Your task to perform on an android device: install app "Upside-Cash back on gas & food" Image 0: 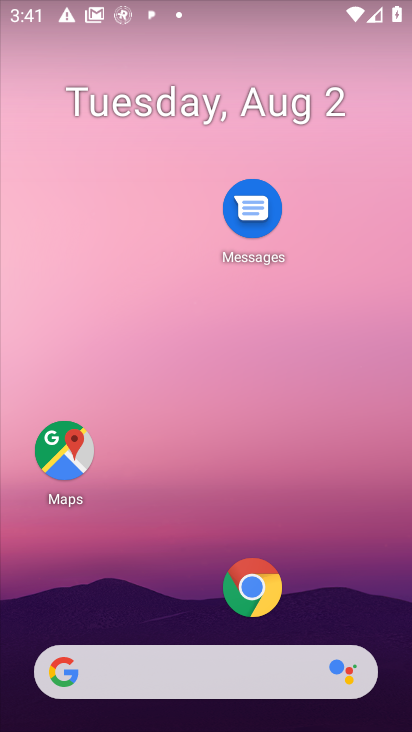
Step 0: drag from (167, 540) to (175, 168)
Your task to perform on an android device: install app "Upside-Cash back on gas & food" Image 1: 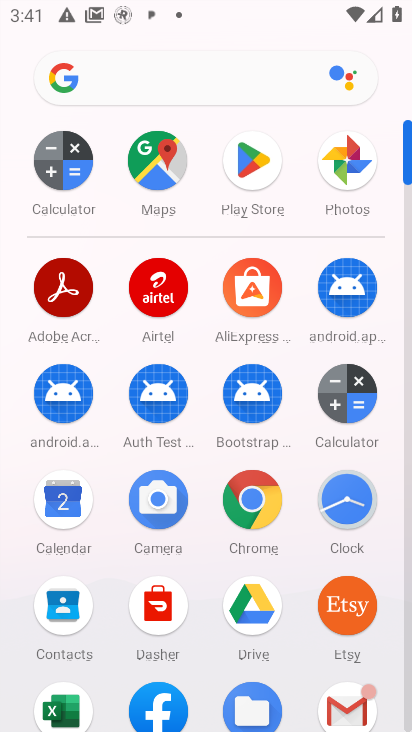
Step 1: click (229, 170)
Your task to perform on an android device: install app "Upside-Cash back on gas & food" Image 2: 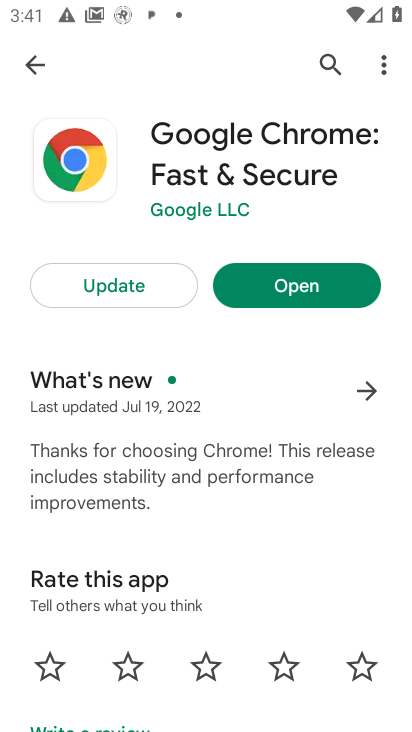
Step 2: click (325, 69)
Your task to perform on an android device: install app "Upside-Cash back on gas & food" Image 3: 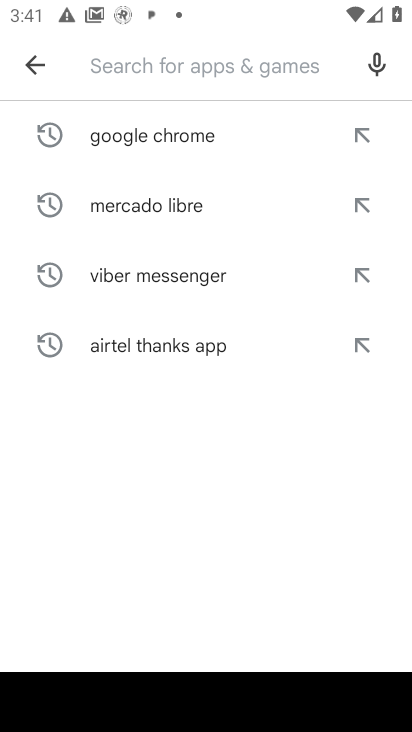
Step 3: type "Upside-Cash back on gas & food"
Your task to perform on an android device: install app "Upside-Cash back on gas & food" Image 4: 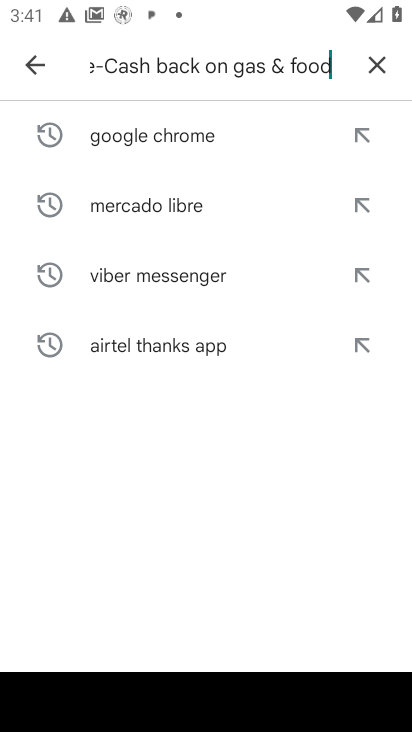
Step 4: type ""
Your task to perform on an android device: install app "Upside-Cash back on gas & food" Image 5: 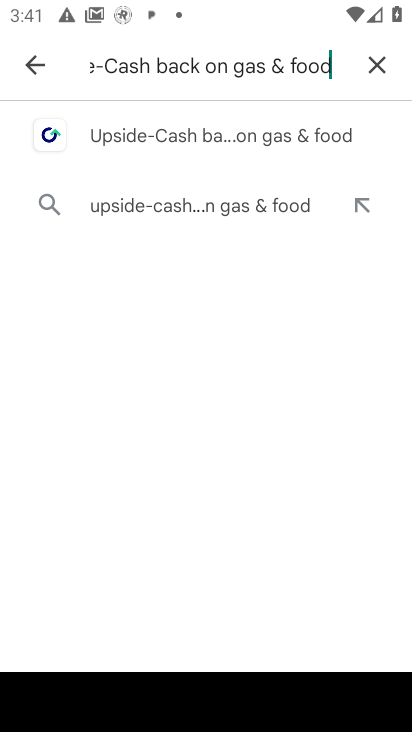
Step 5: click (194, 138)
Your task to perform on an android device: install app "Upside-Cash back on gas & food" Image 6: 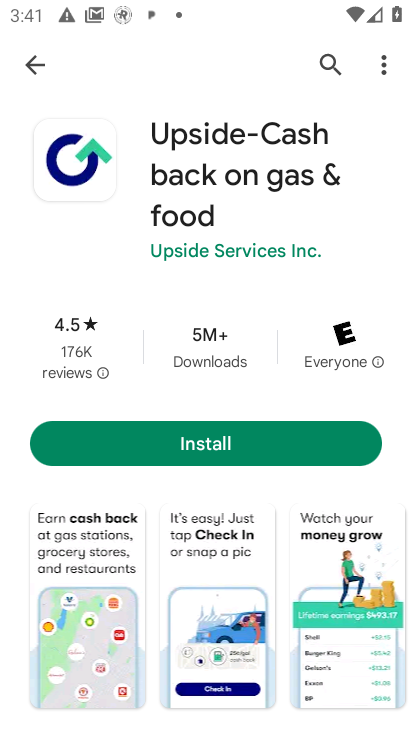
Step 6: click (217, 451)
Your task to perform on an android device: install app "Upside-Cash back on gas & food" Image 7: 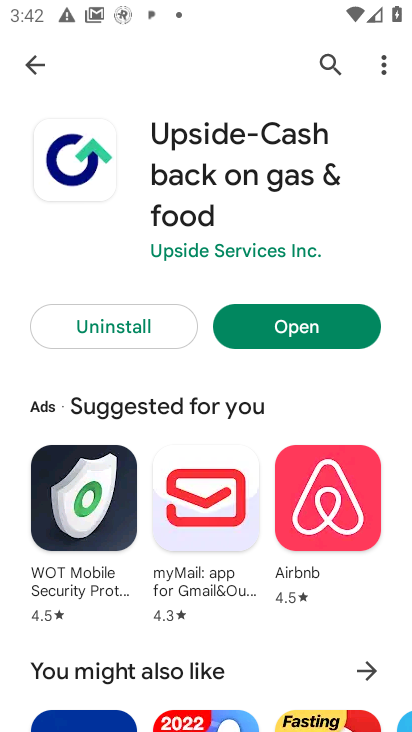
Step 7: task complete